Your task to perform on an android device: Open Maps and search for coffee Image 0: 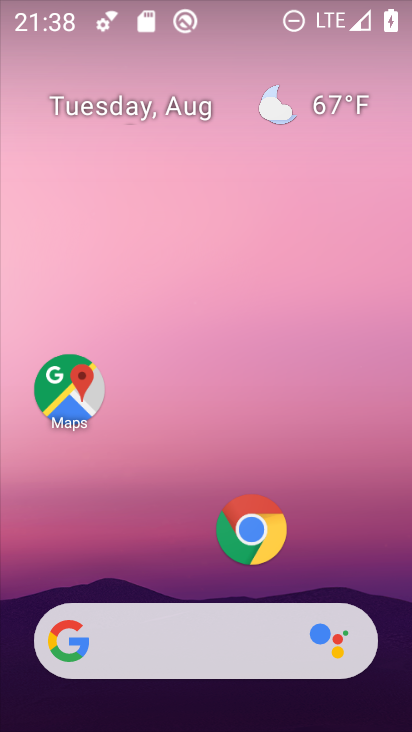
Step 0: drag from (160, 576) to (224, 149)
Your task to perform on an android device: Open Maps and search for coffee Image 1: 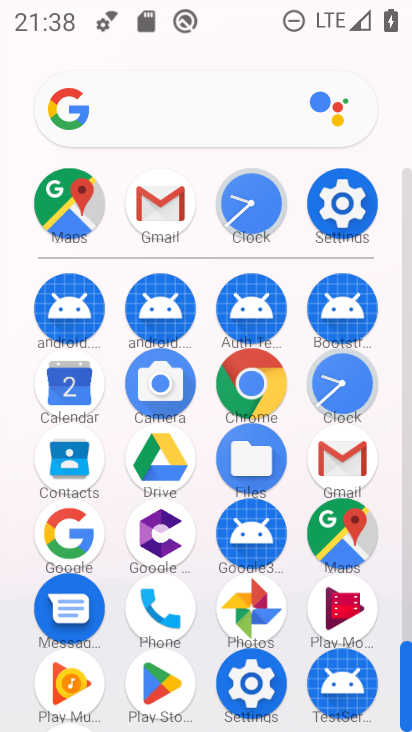
Step 1: click (321, 525)
Your task to perform on an android device: Open Maps and search for coffee Image 2: 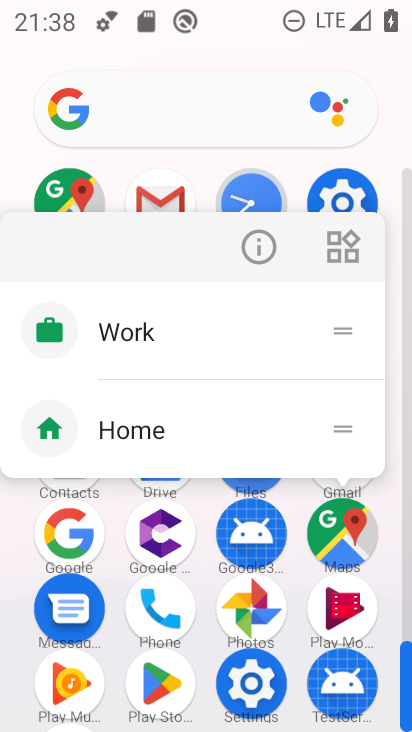
Step 2: click (259, 251)
Your task to perform on an android device: Open Maps and search for coffee Image 3: 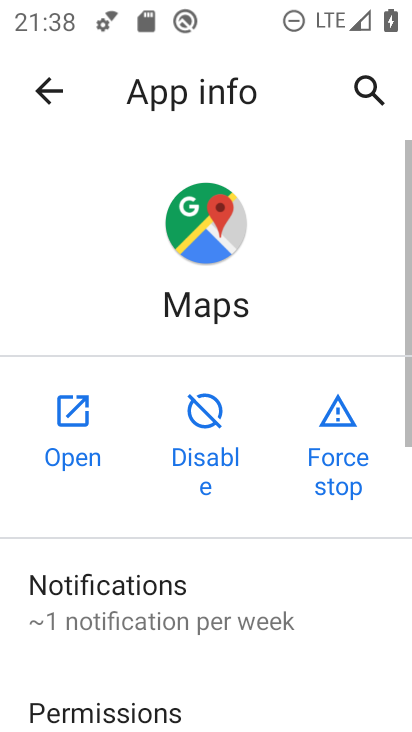
Step 3: click (78, 430)
Your task to perform on an android device: Open Maps and search for coffee Image 4: 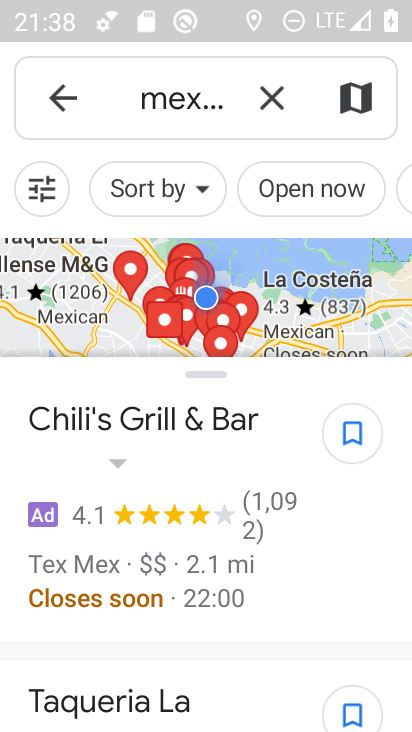
Step 4: drag from (207, 601) to (257, 332)
Your task to perform on an android device: Open Maps and search for coffee Image 5: 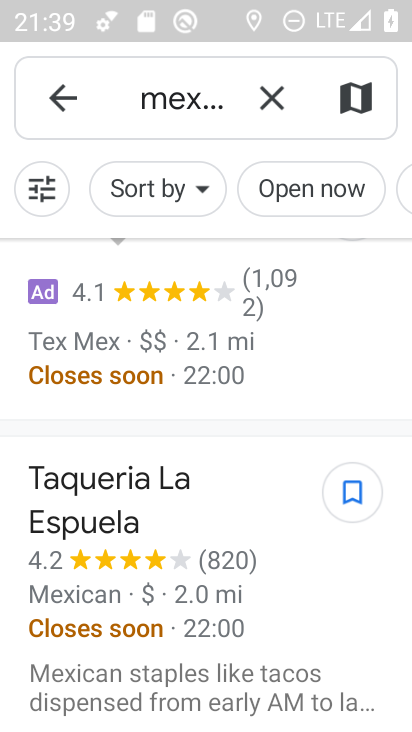
Step 5: click (262, 104)
Your task to perform on an android device: Open Maps and search for coffee Image 6: 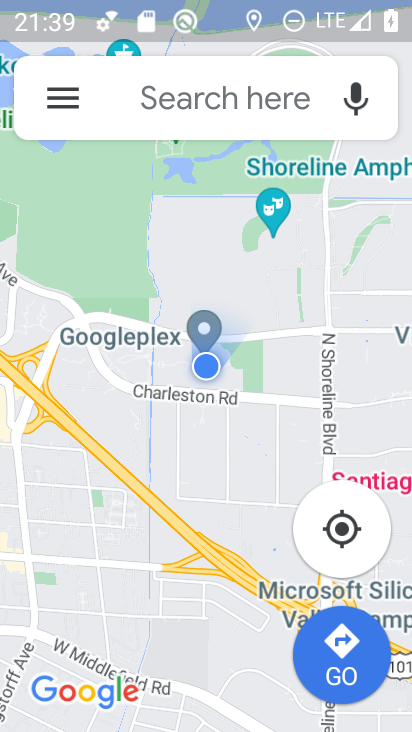
Step 6: click (230, 94)
Your task to perform on an android device: Open Maps and search for coffee Image 7: 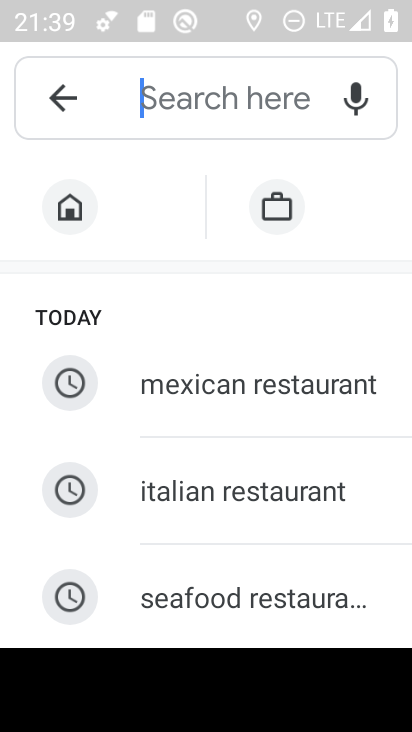
Step 7: type "coffee"
Your task to perform on an android device: Open Maps and search for coffee Image 8: 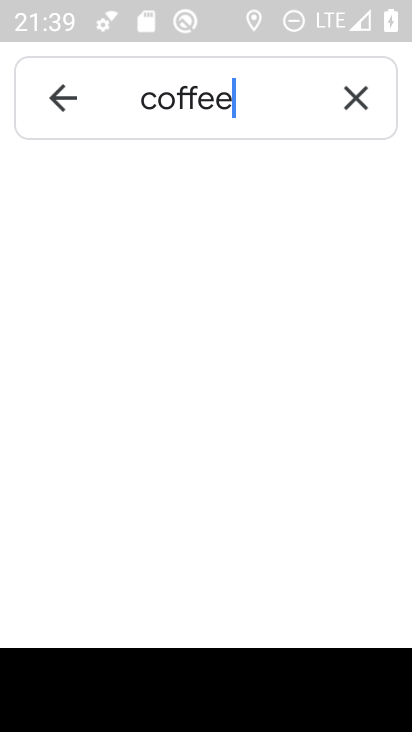
Step 8: type ""
Your task to perform on an android device: Open Maps and search for coffee Image 9: 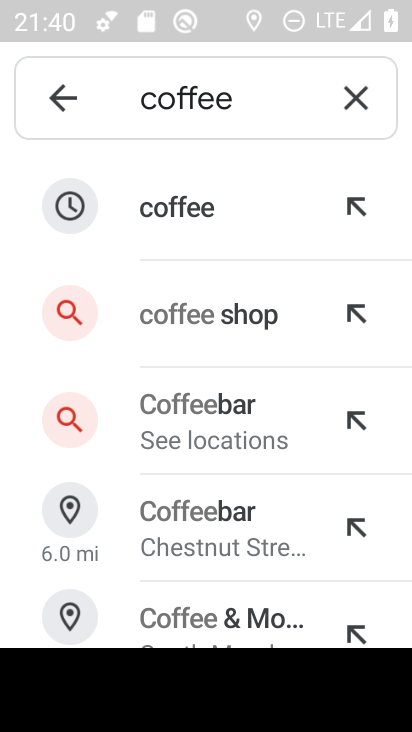
Step 9: click (174, 215)
Your task to perform on an android device: Open Maps and search for coffee Image 10: 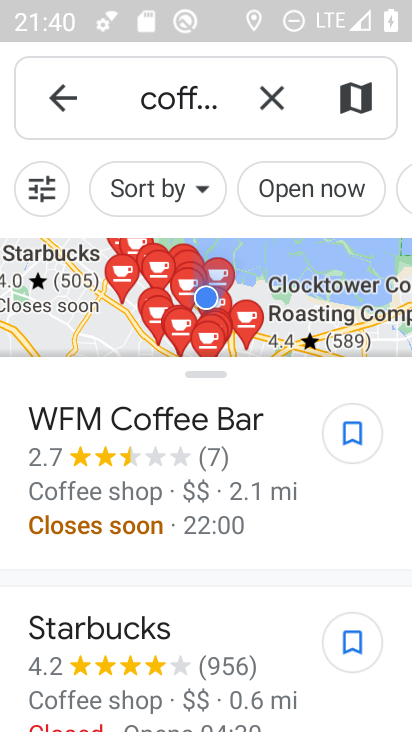
Step 10: task complete